Your task to perform on an android device: turn notification dots off Image 0: 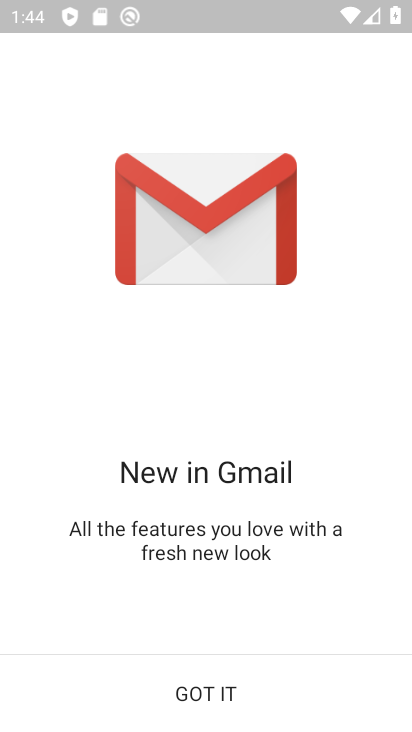
Step 0: press home button
Your task to perform on an android device: turn notification dots off Image 1: 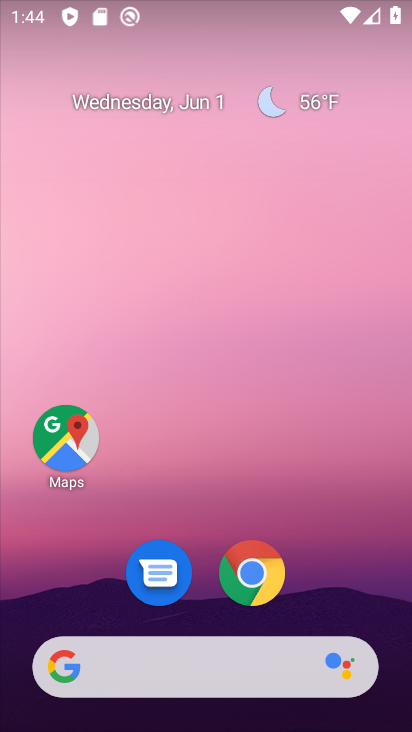
Step 1: drag from (359, 571) to (206, 3)
Your task to perform on an android device: turn notification dots off Image 2: 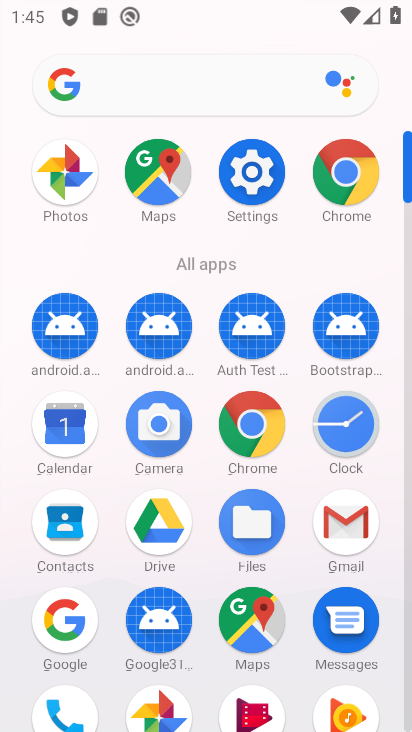
Step 2: click (259, 162)
Your task to perform on an android device: turn notification dots off Image 3: 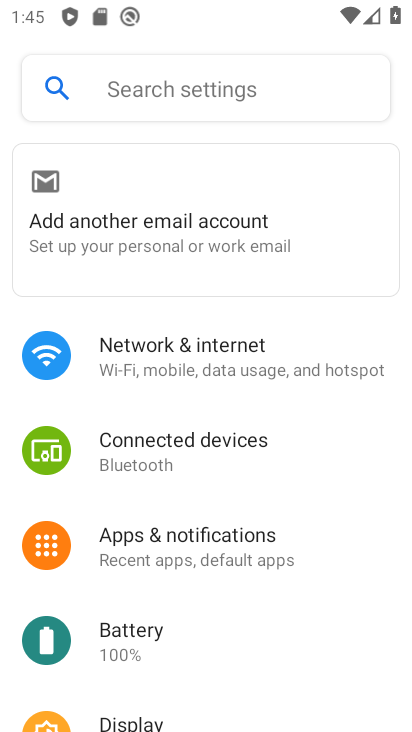
Step 3: click (250, 548)
Your task to perform on an android device: turn notification dots off Image 4: 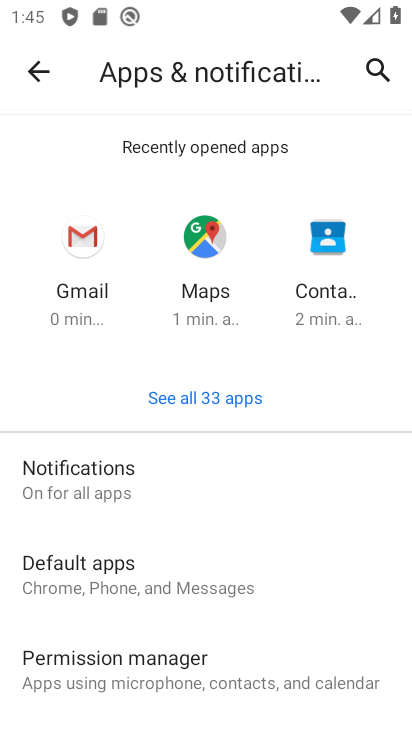
Step 4: click (89, 493)
Your task to perform on an android device: turn notification dots off Image 5: 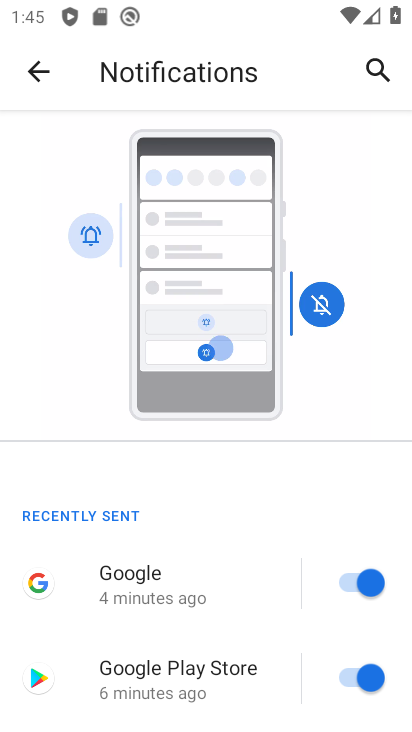
Step 5: drag from (153, 636) to (90, 201)
Your task to perform on an android device: turn notification dots off Image 6: 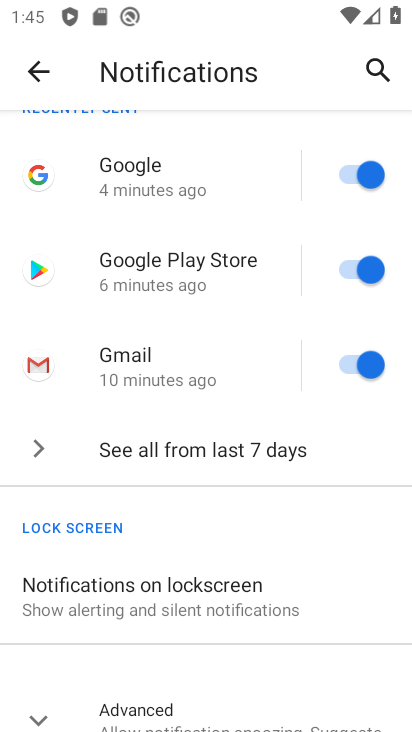
Step 6: drag from (188, 626) to (92, 242)
Your task to perform on an android device: turn notification dots off Image 7: 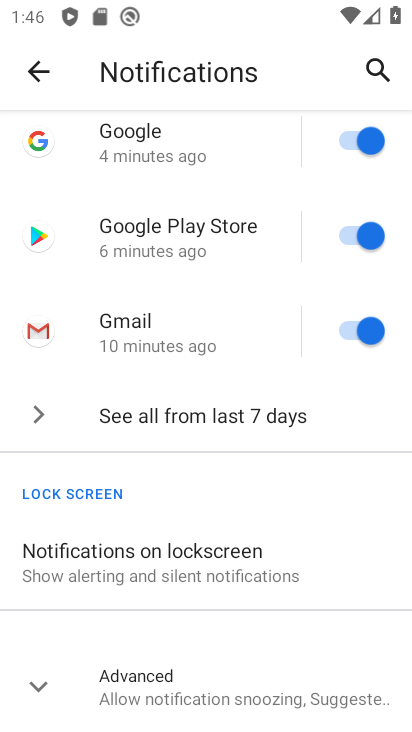
Step 7: drag from (143, 607) to (94, 352)
Your task to perform on an android device: turn notification dots off Image 8: 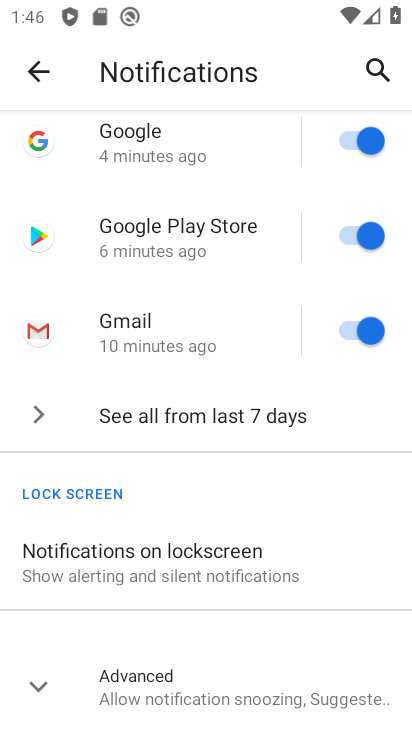
Step 8: click (183, 692)
Your task to perform on an android device: turn notification dots off Image 9: 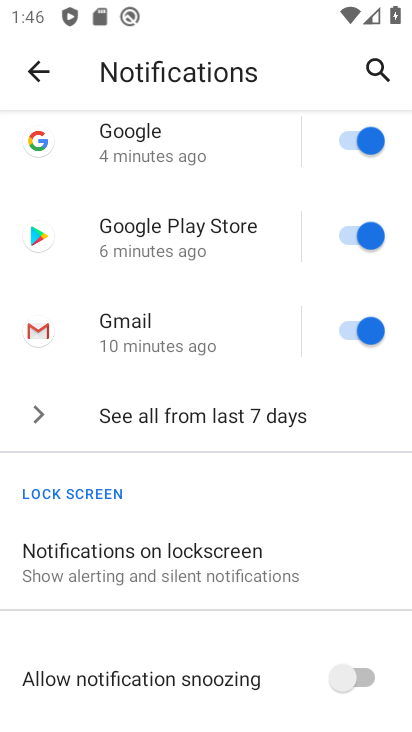
Step 9: drag from (189, 674) to (116, 214)
Your task to perform on an android device: turn notification dots off Image 10: 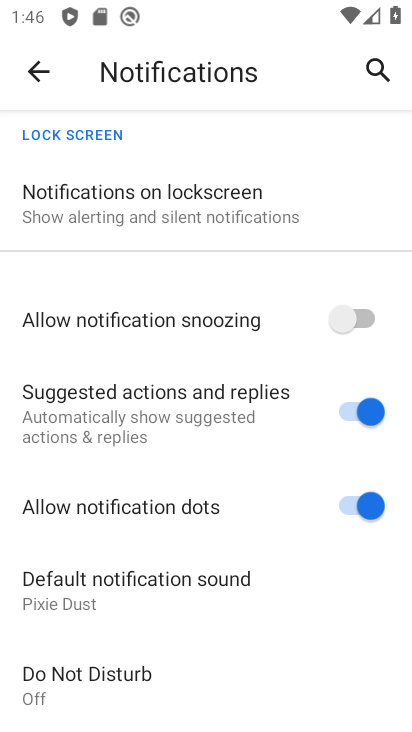
Step 10: click (368, 523)
Your task to perform on an android device: turn notification dots off Image 11: 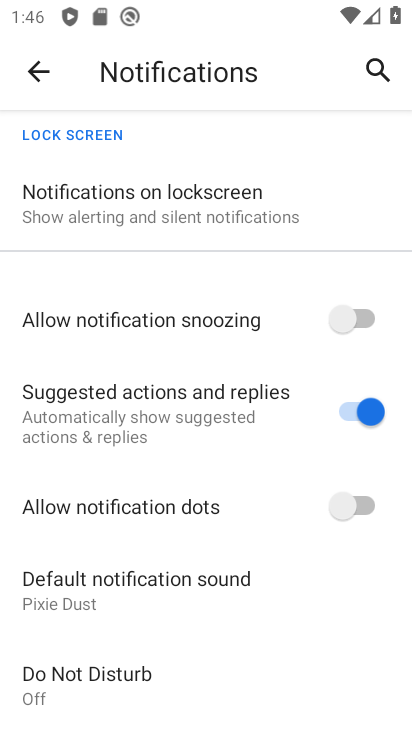
Step 11: task complete